Your task to perform on an android device: Do I have any events this weekend? Image 0: 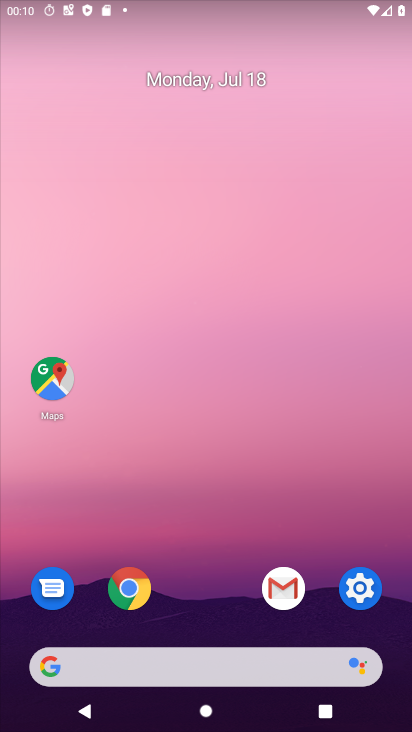
Step 0: drag from (254, 687) to (133, 98)
Your task to perform on an android device: Do I have any events this weekend? Image 1: 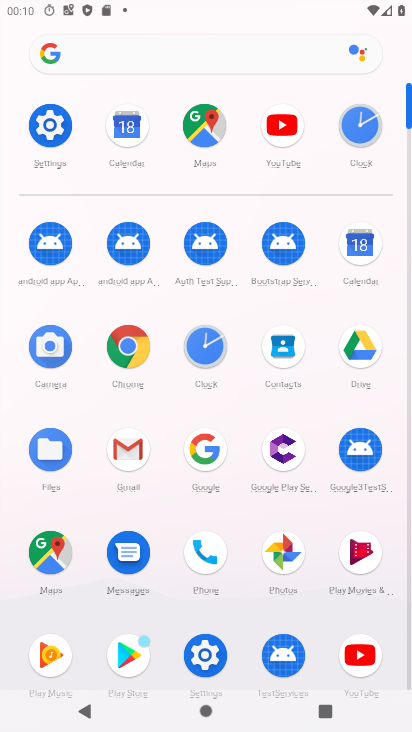
Step 1: click (355, 251)
Your task to perform on an android device: Do I have any events this weekend? Image 2: 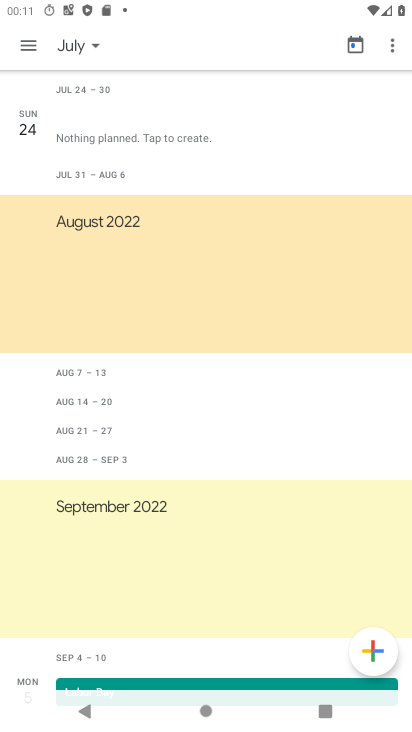
Step 2: click (31, 56)
Your task to perform on an android device: Do I have any events this weekend? Image 3: 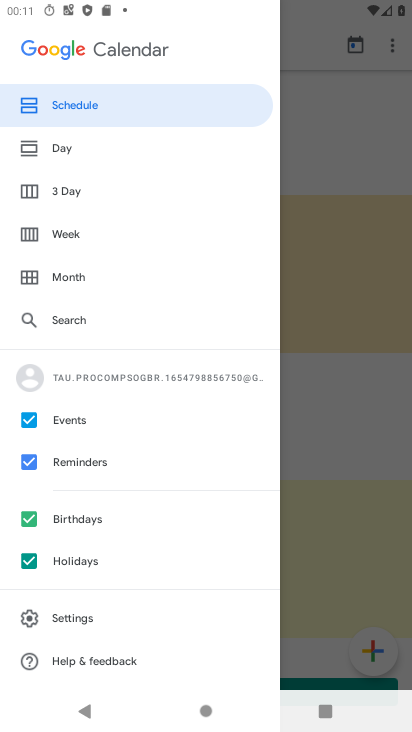
Step 3: click (119, 272)
Your task to perform on an android device: Do I have any events this weekend? Image 4: 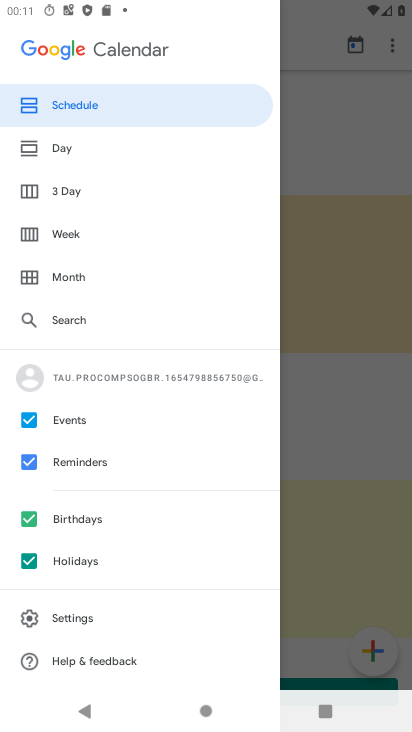
Step 4: click (70, 232)
Your task to perform on an android device: Do I have any events this weekend? Image 5: 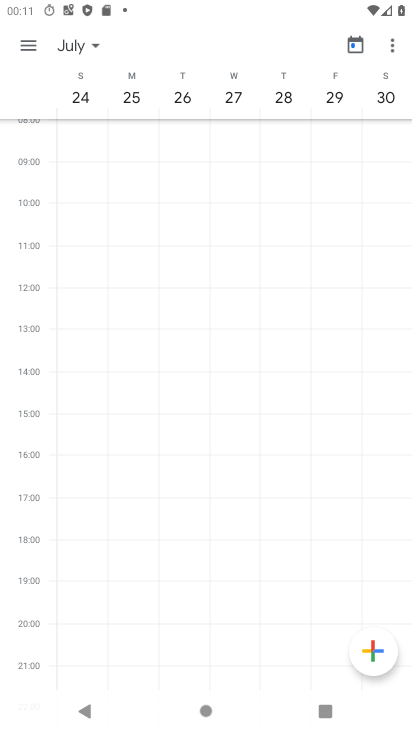
Step 5: task complete